Your task to perform on an android device: turn off notifications in google photos Image 0: 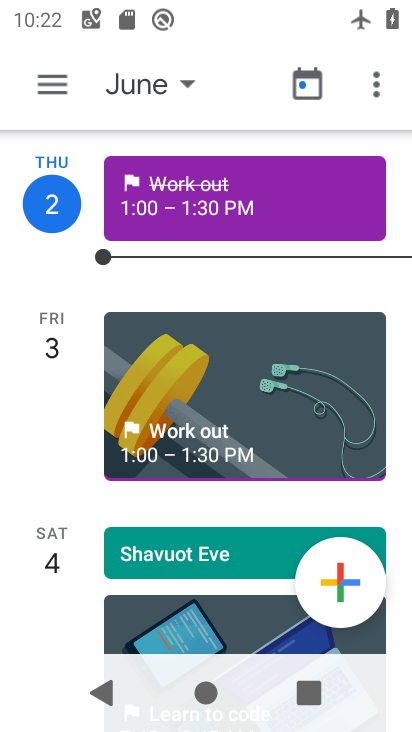
Step 0: press home button
Your task to perform on an android device: turn off notifications in google photos Image 1: 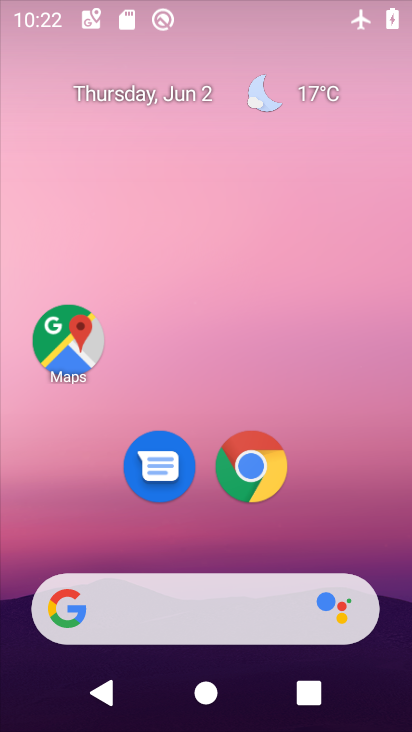
Step 1: drag from (236, 569) to (243, 314)
Your task to perform on an android device: turn off notifications in google photos Image 2: 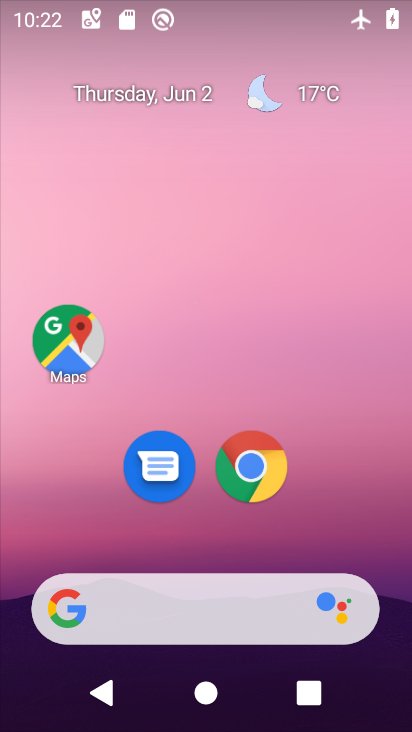
Step 2: drag from (199, 471) to (229, 178)
Your task to perform on an android device: turn off notifications in google photos Image 3: 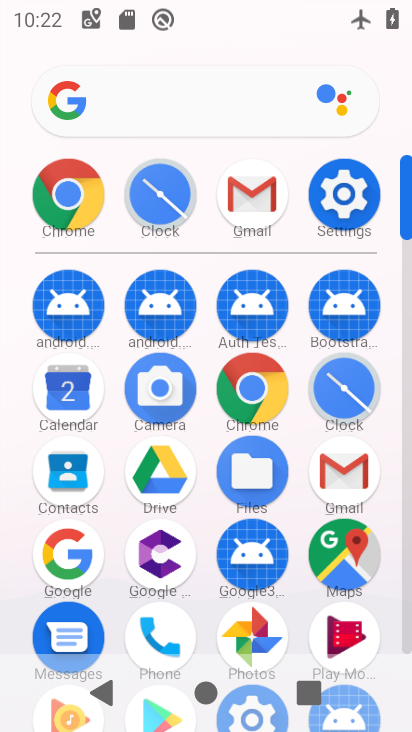
Step 3: click (246, 625)
Your task to perform on an android device: turn off notifications in google photos Image 4: 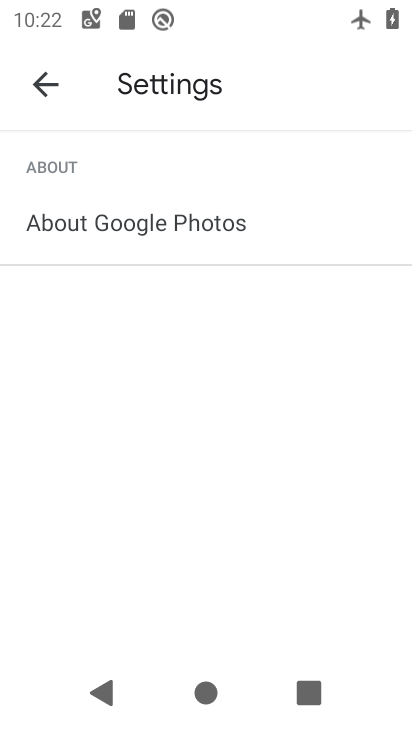
Step 4: click (42, 89)
Your task to perform on an android device: turn off notifications in google photos Image 5: 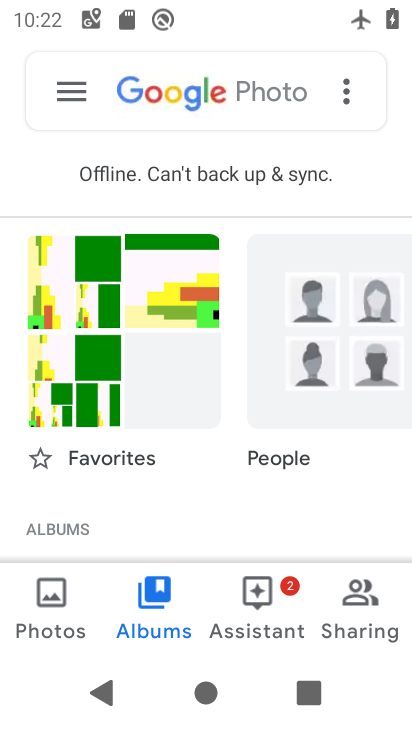
Step 5: click (56, 76)
Your task to perform on an android device: turn off notifications in google photos Image 6: 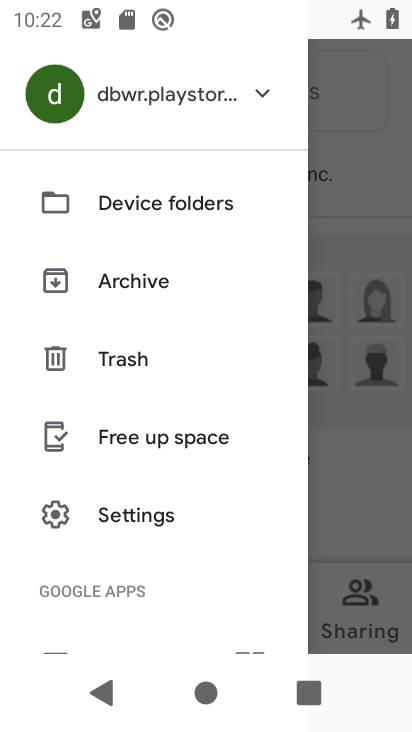
Step 6: click (160, 521)
Your task to perform on an android device: turn off notifications in google photos Image 7: 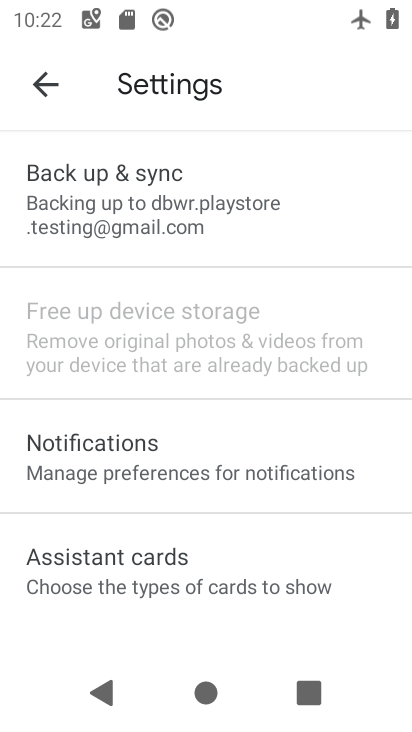
Step 7: click (138, 431)
Your task to perform on an android device: turn off notifications in google photos Image 8: 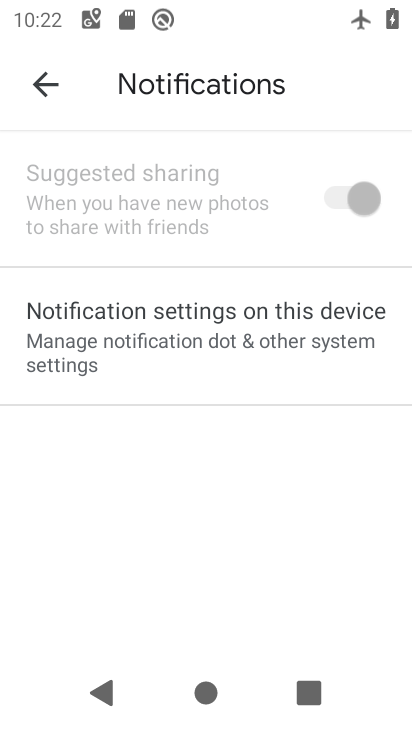
Step 8: click (258, 290)
Your task to perform on an android device: turn off notifications in google photos Image 9: 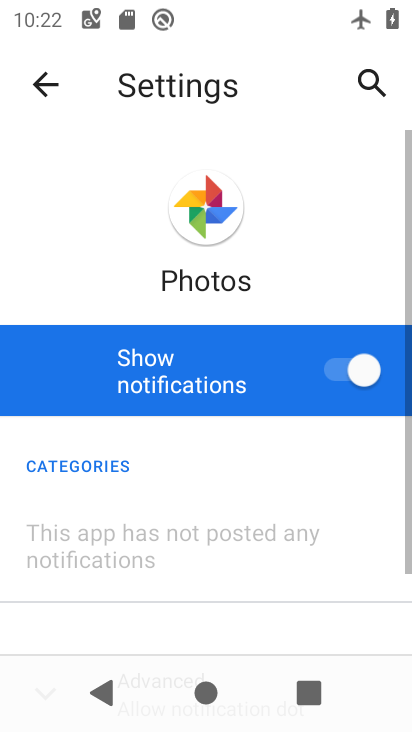
Step 9: click (339, 369)
Your task to perform on an android device: turn off notifications in google photos Image 10: 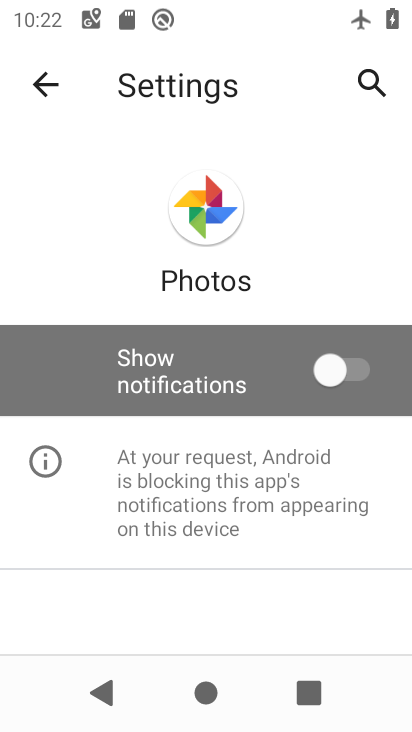
Step 10: task complete